Your task to perform on an android device: Open Google Maps and go to "Timeline" Image 0: 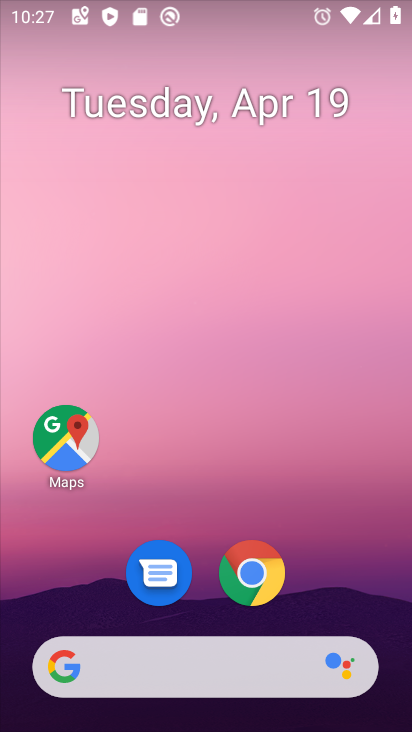
Step 0: click (69, 439)
Your task to perform on an android device: Open Google Maps and go to "Timeline" Image 1: 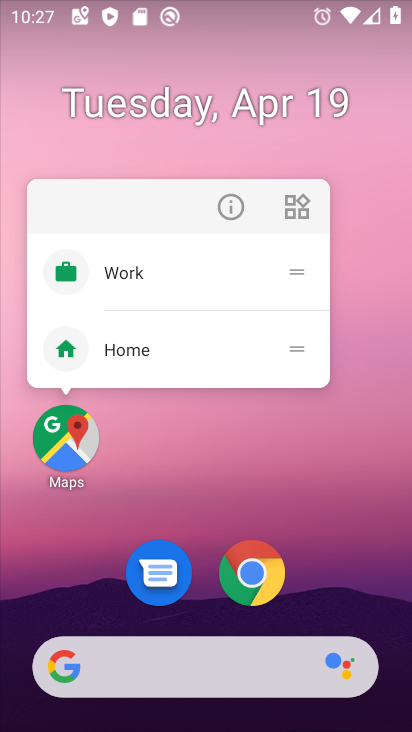
Step 1: click (69, 439)
Your task to perform on an android device: Open Google Maps and go to "Timeline" Image 2: 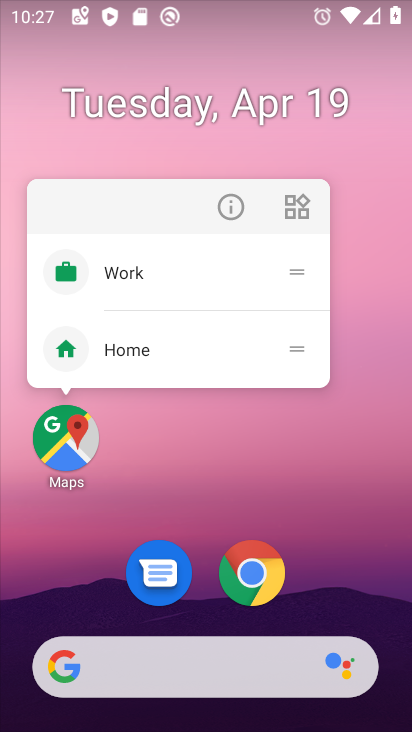
Step 2: click (77, 429)
Your task to perform on an android device: Open Google Maps and go to "Timeline" Image 3: 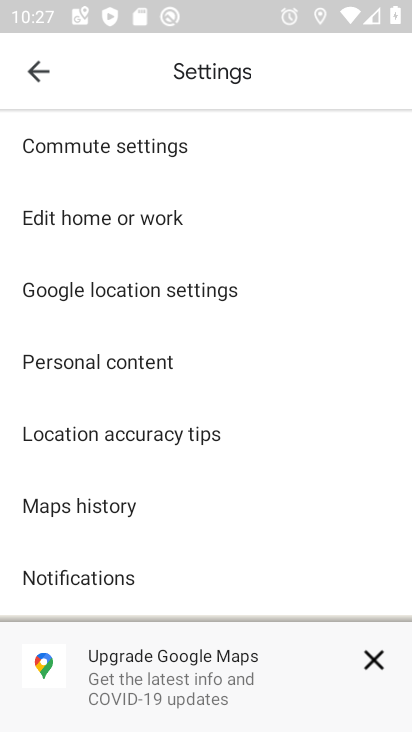
Step 3: press back button
Your task to perform on an android device: Open Google Maps and go to "Timeline" Image 4: 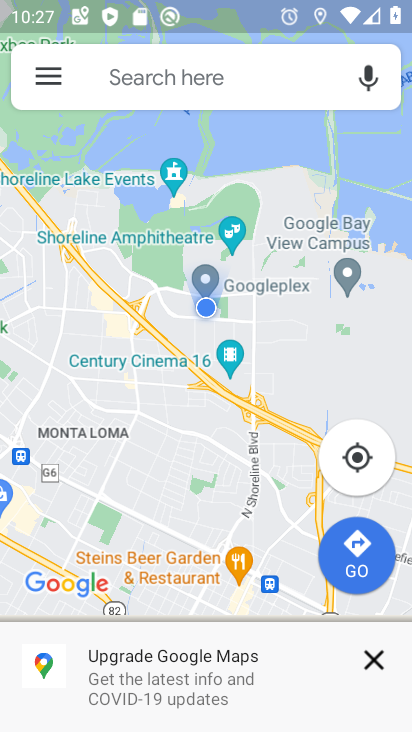
Step 4: click (37, 77)
Your task to perform on an android device: Open Google Maps and go to "Timeline" Image 5: 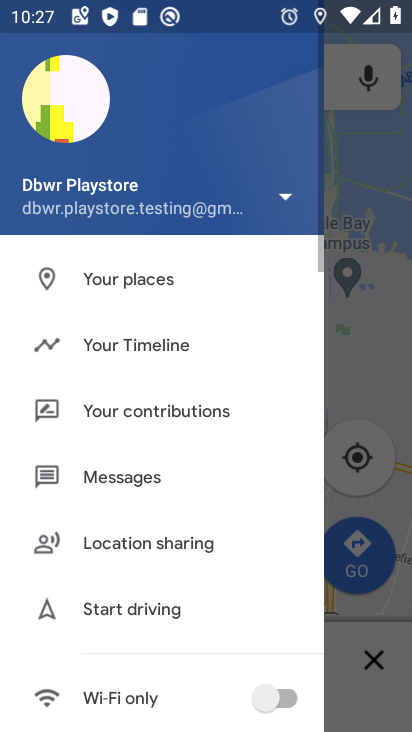
Step 5: click (119, 341)
Your task to perform on an android device: Open Google Maps and go to "Timeline" Image 6: 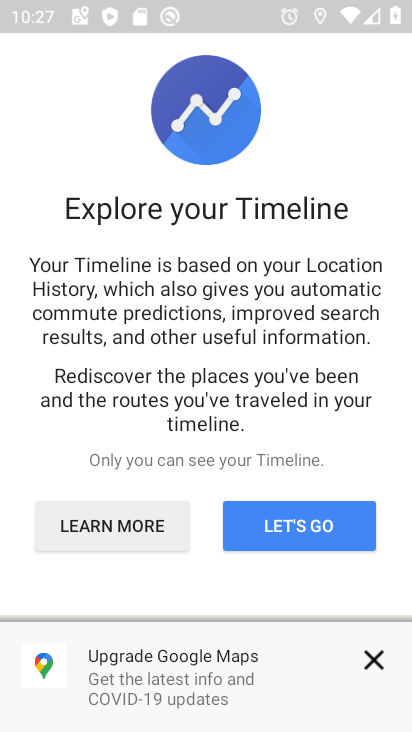
Step 6: task complete